Your task to perform on an android device: Is it going to rain tomorrow? Image 0: 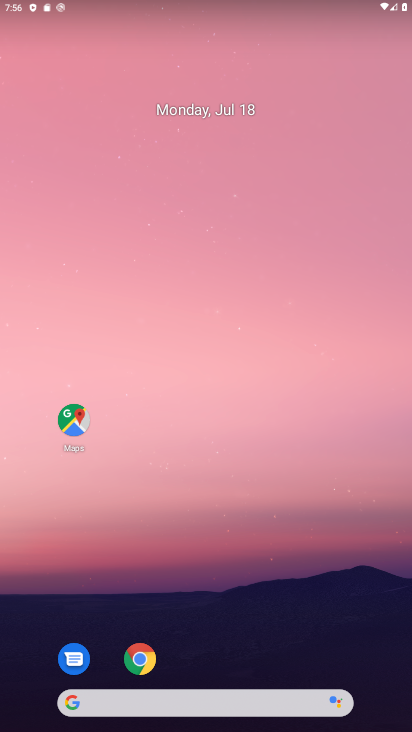
Step 0: click (159, 698)
Your task to perform on an android device: Is it going to rain tomorrow? Image 1: 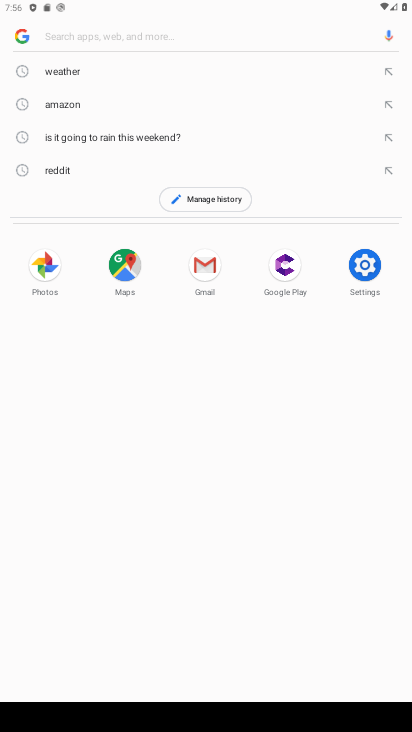
Step 1: type "is it going to rain tomorrow?"
Your task to perform on an android device: Is it going to rain tomorrow? Image 2: 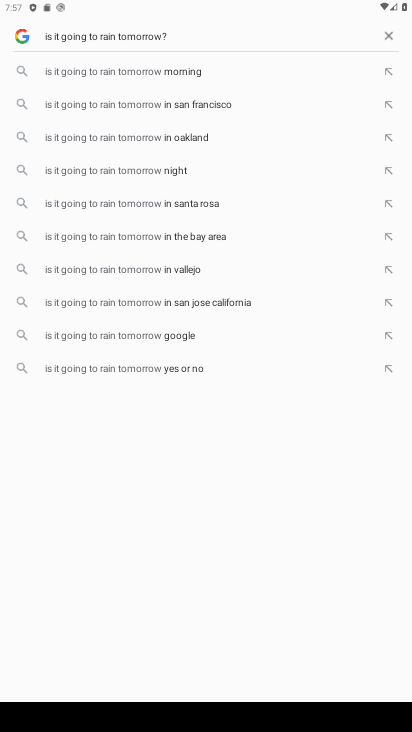
Step 2: click (162, 331)
Your task to perform on an android device: Is it going to rain tomorrow? Image 3: 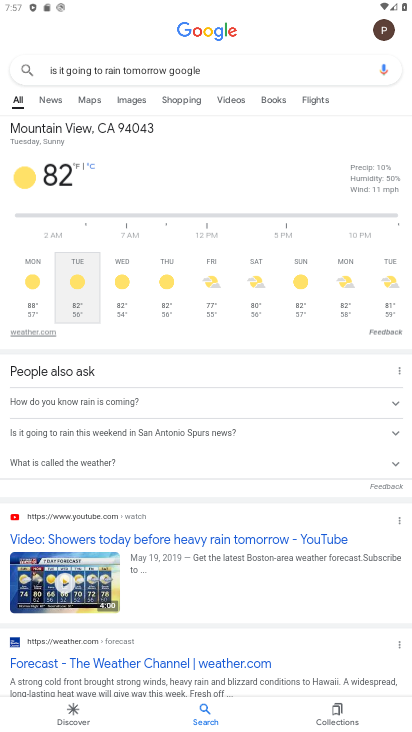
Step 3: task complete